Your task to perform on an android device: Find coffee shops on Maps Image 0: 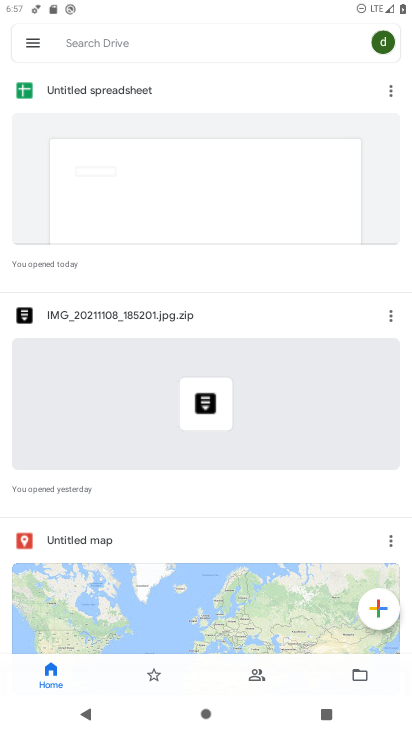
Step 0: press home button
Your task to perform on an android device: Find coffee shops on Maps Image 1: 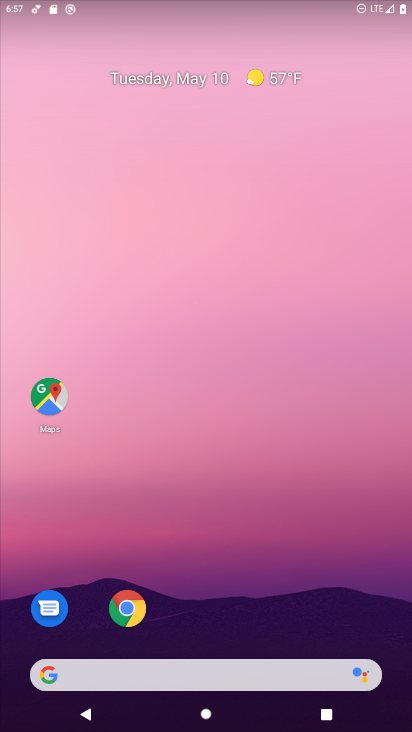
Step 1: drag from (324, 596) to (291, 36)
Your task to perform on an android device: Find coffee shops on Maps Image 2: 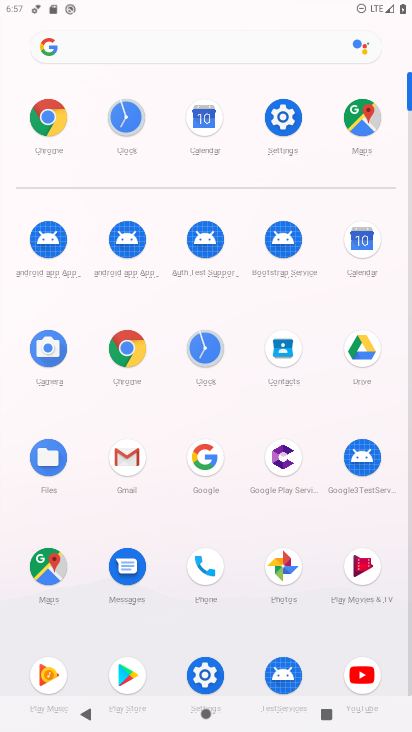
Step 2: click (354, 135)
Your task to perform on an android device: Find coffee shops on Maps Image 3: 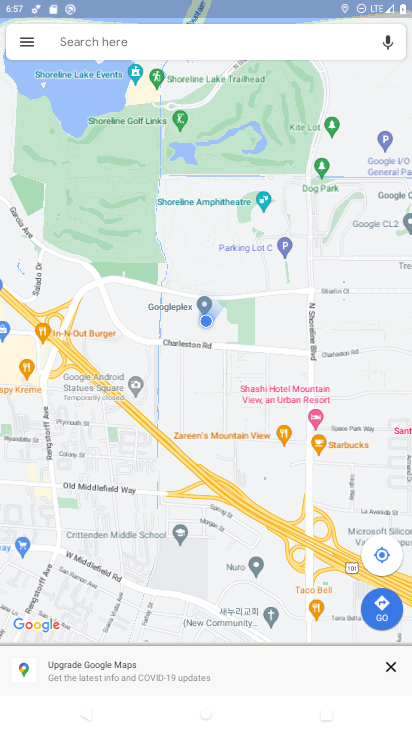
Step 3: click (105, 38)
Your task to perform on an android device: Find coffee shops on Maps Image 4: 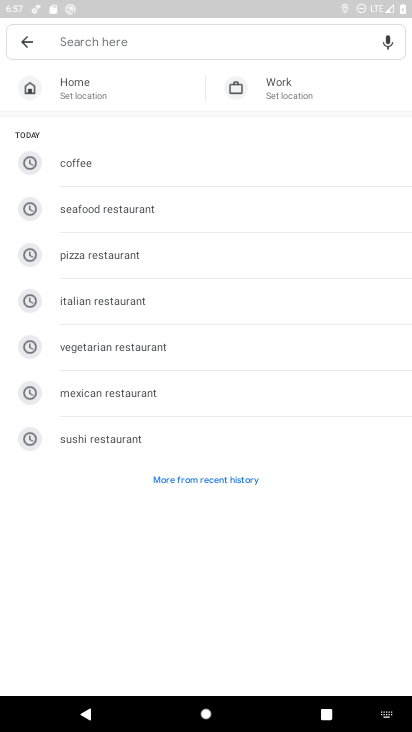
Step 4: click (105, 166)
Your task to perform on an android device: Find coffee shops on Maps Image 5: 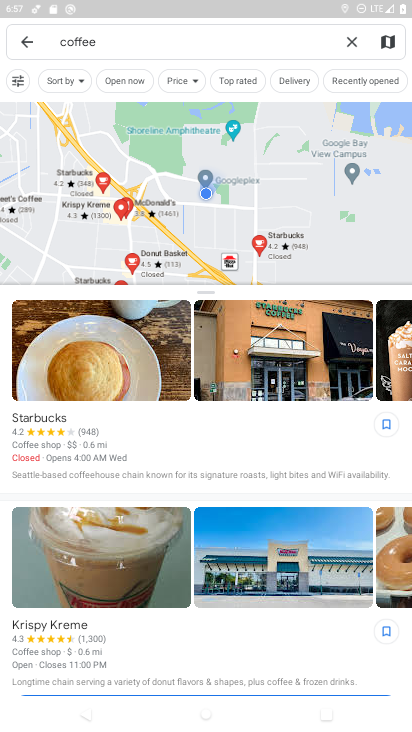
Step 5: task complete